Your task to perform on an android device: set an alarm Image 0: 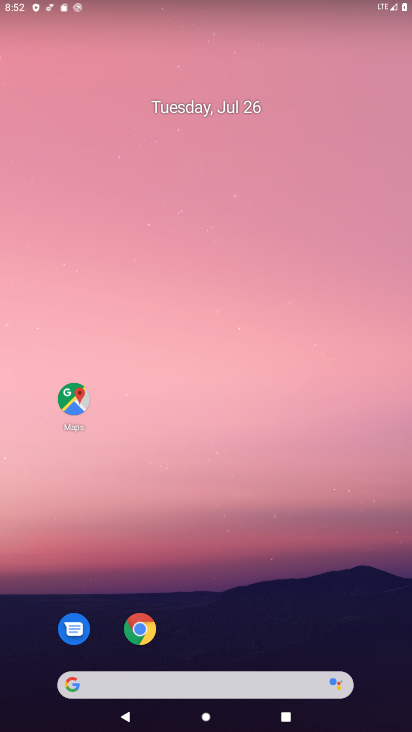
Step 0: drag from (169, 660) to (173, 95)
Your task to perform on an android device: set an alarm Image 1: 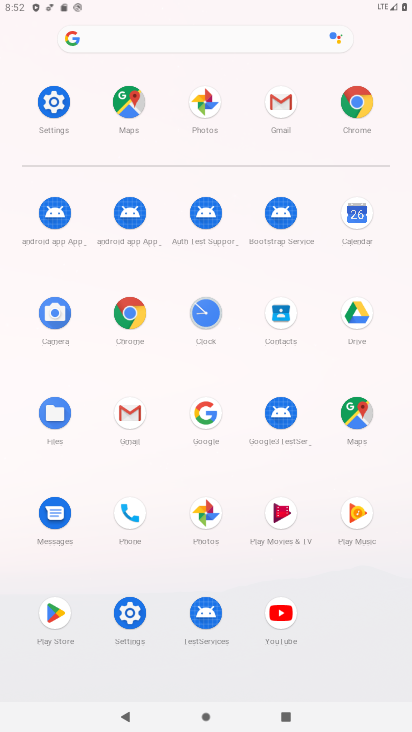
Step 1: click (212, 298)
Your task to perform on an android device: set an alarm Image 2: 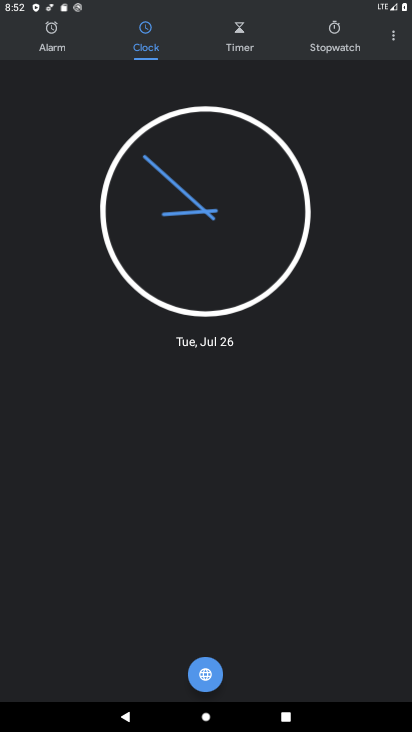
Step 2: click (67, 32)
Your task to perform on an android device: set an alarm Image 3: 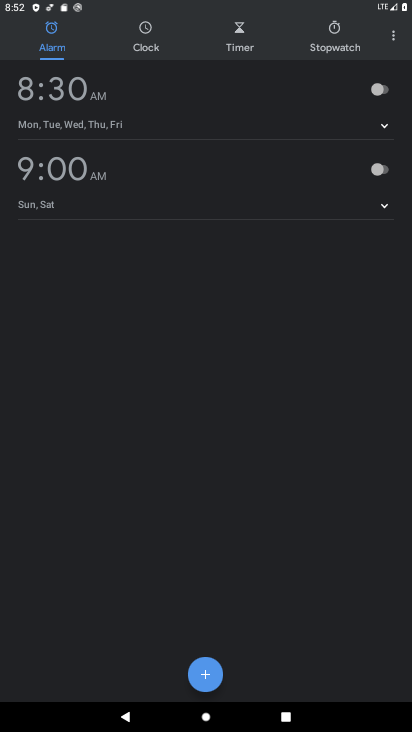
Step 3: click (196, 672)
Your task to perform on an android device: set an alarm Image 4: 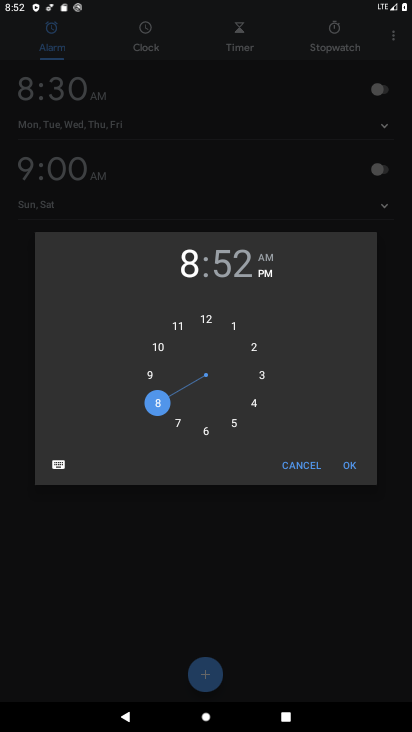
Step 4: click (352, 466)
Your task to perform on an android device: set an alarm Image 5: 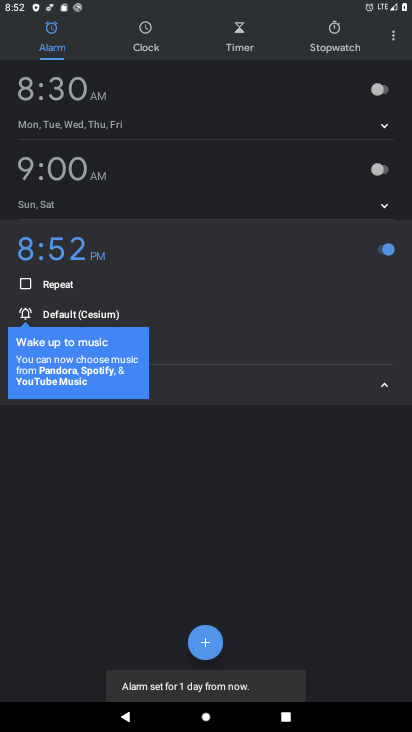
Step 5: task complete